Your task to perform on an android device: Show me recent news Image 0: 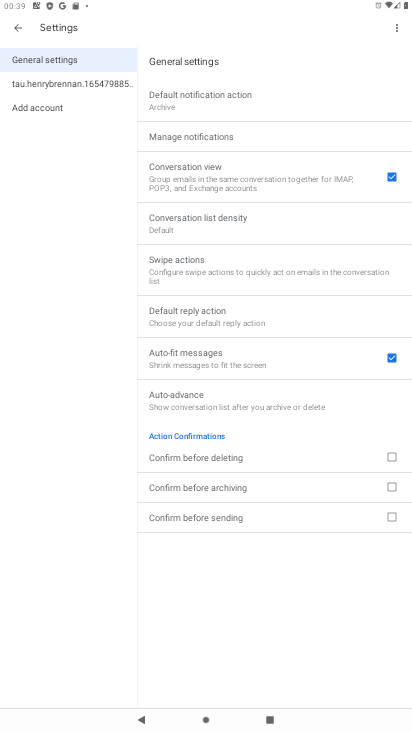
Step 0: press home button
Your task to perform on an android device: Show me recent news Image 1: 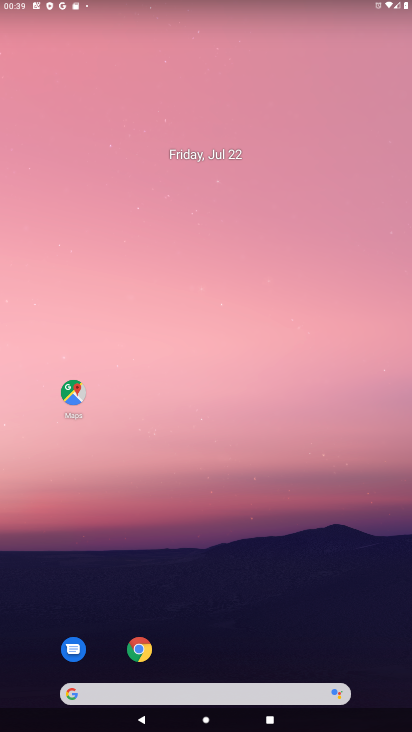
Step 1: drag from (342, 577) to (314, 98)
Your task to perform on an android device: Show me recent news Image 2: 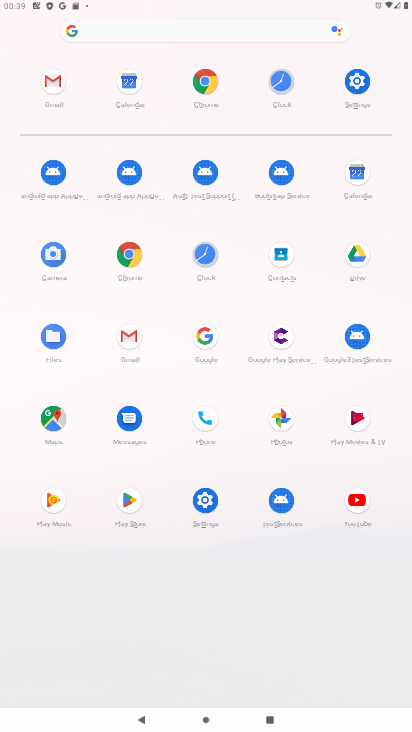
Step 2: click (204, 74)
Your task to perform on an android device: Show me recent news Image 3: 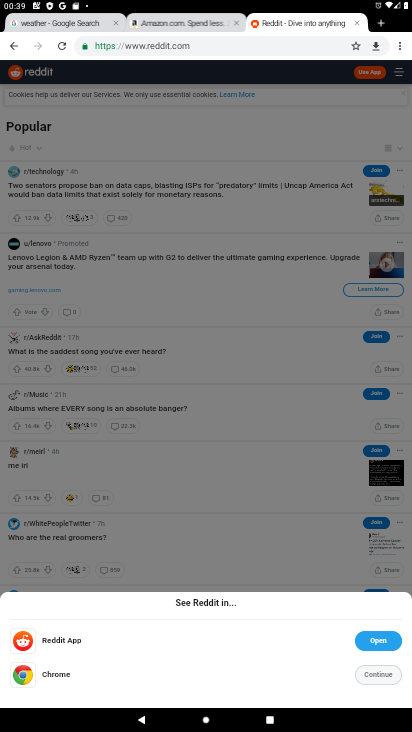
Step 3: click (243, 41)
Your task to perform on an android device: Show me recent news Image 4: 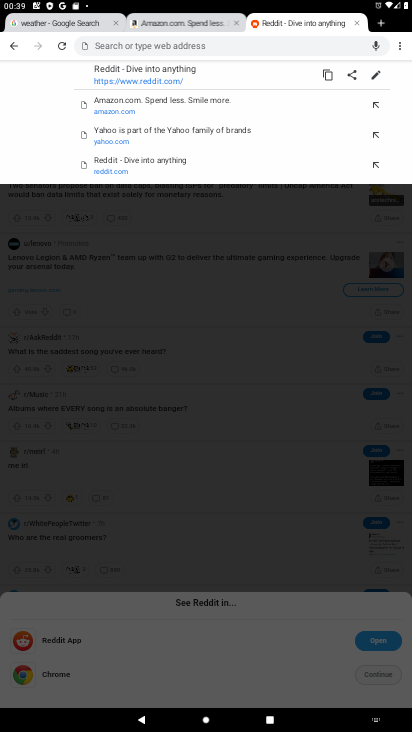
Step 4: type "news"
Your task to perform on an android device: Show me recent news Image 5: 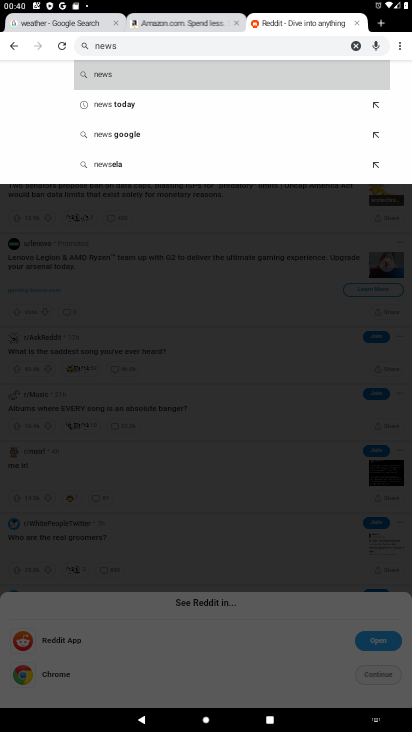
Step 5: click (184, 75)
Your task to perform on an android device: Show me recent news Image 6: 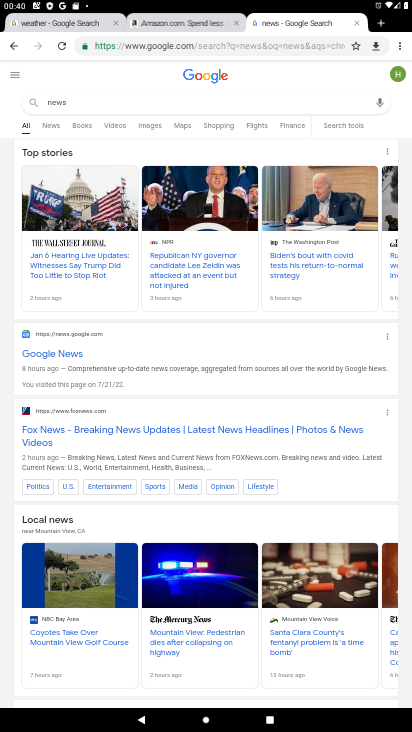
Step 6: click (64, 359)
Your task to perform on an android device: Show me recent news Image 7: 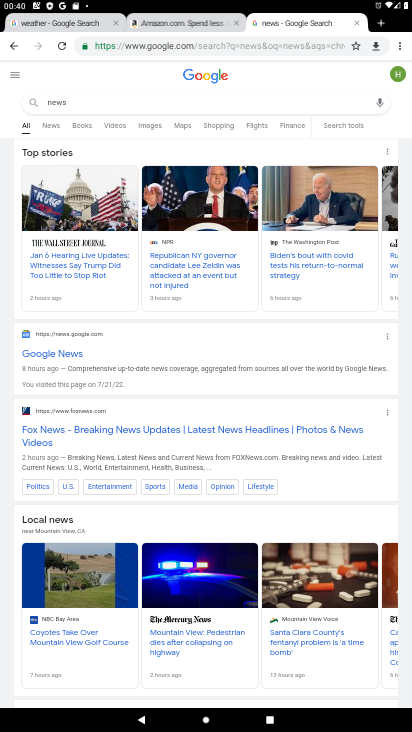
Step 7: click (46, 351)
Your task to perform on an android device: Show me recent news Image 8: 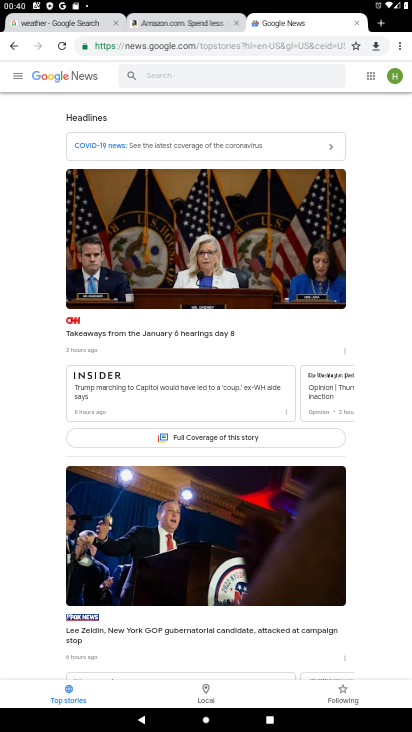
Step 8: task complete